Your task to perform on an android device: star an email in the gmail app Image 0: 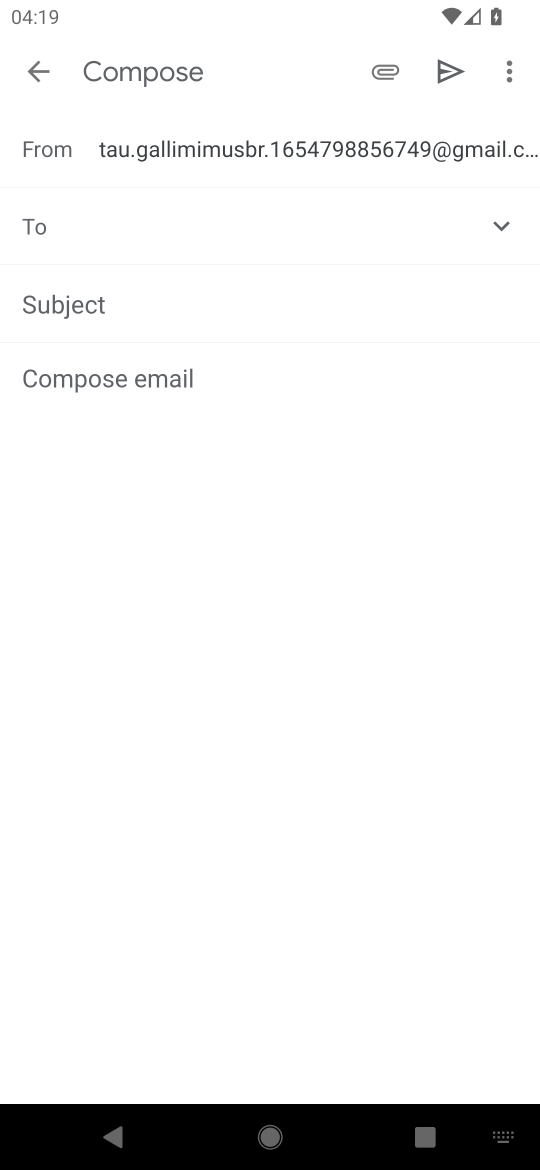
Step 0: press back button
Your task to perform on an android device: star an email in the gmail app Image 1: 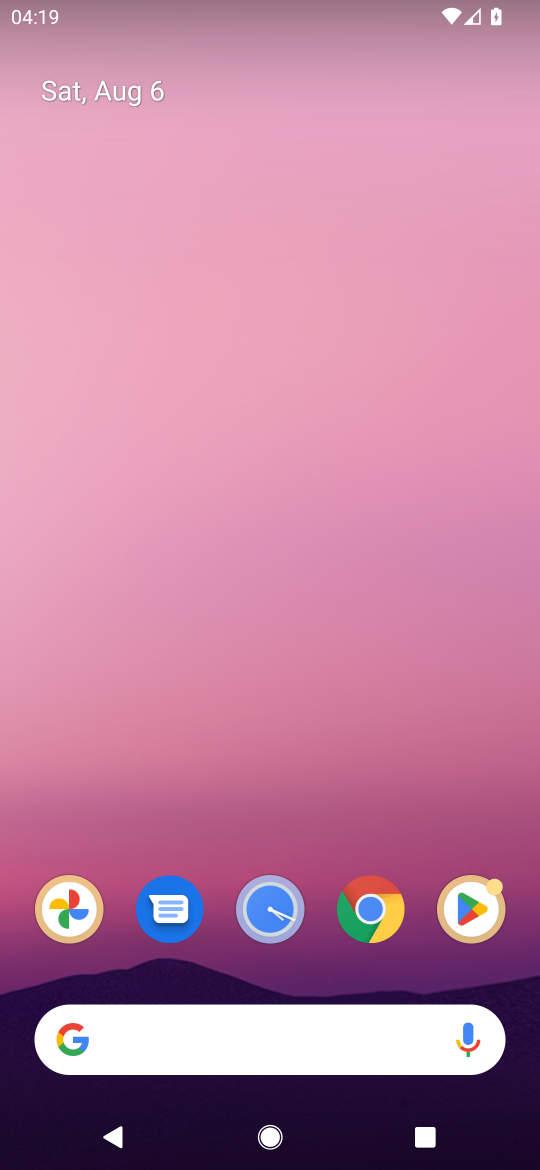
Step 1: drag from (263, 927) to (335, 125)
Your task to perform on an android device: star an email in the gmail app Image 2: 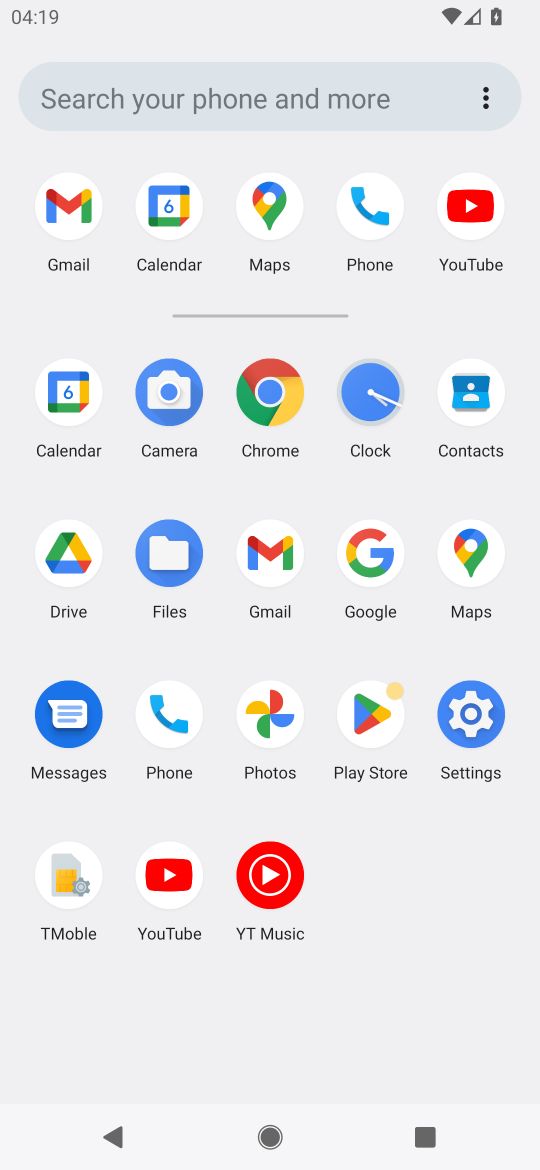
Step 2: click (70, 196)
Your task to perform on an android device: star an email in the gmail app Image 3: 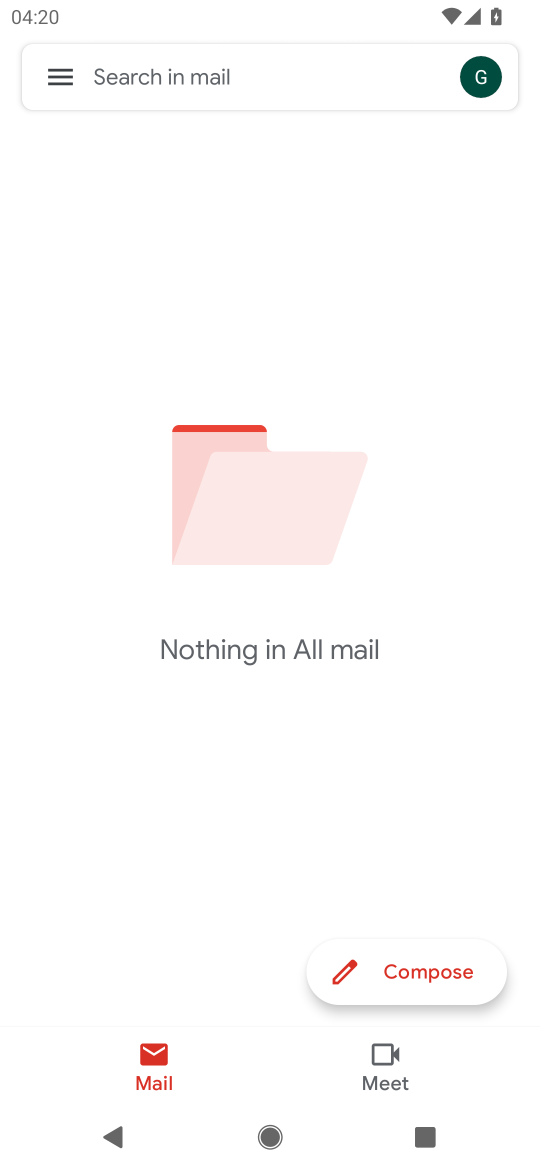
Step 3: task complete